Your task to perform on an android device: turn off smart reply in the gmail app Image 0: 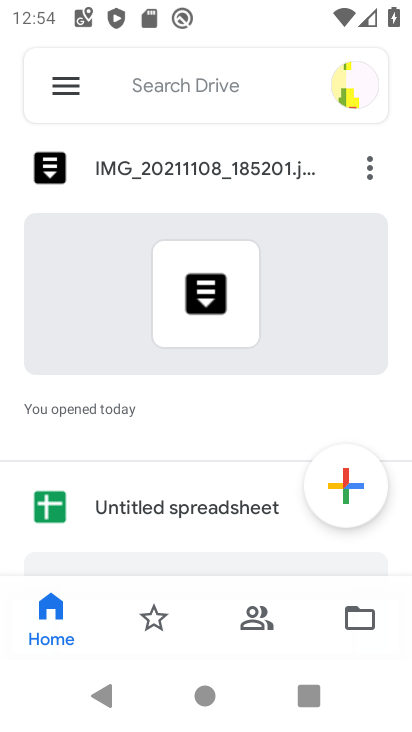
Step 0: press home button
Your task to perform on an android device: turn off smart reply in the gmail app Image 1: 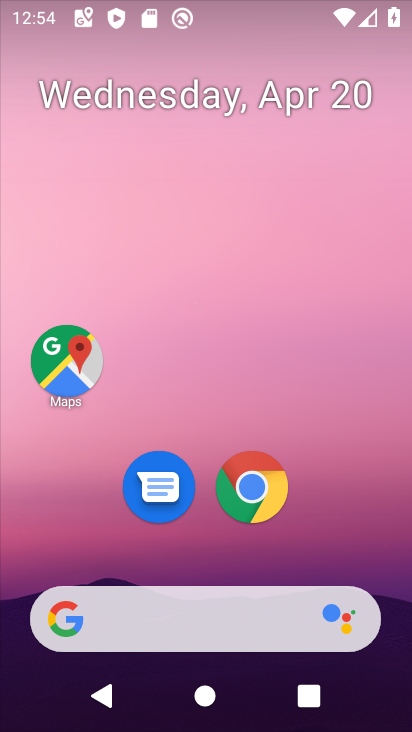
Step 1: drag from (352, 534) to (211, 22)
Your task to perform on an android device: turn off smart reply in the gmail app Image 2: 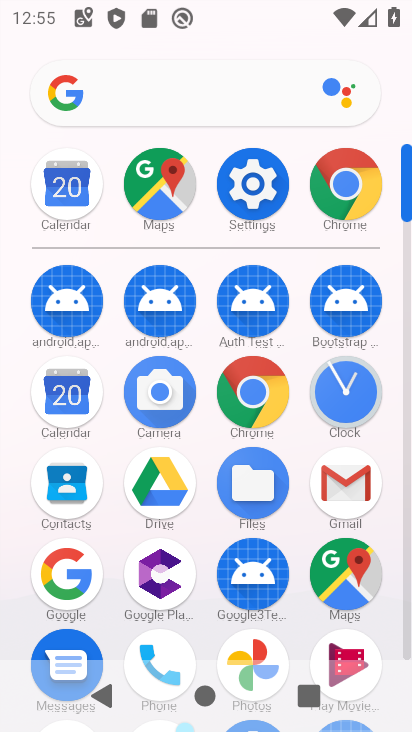
Step 2: click (344, 489)
Your task to perform on an android device: turn off smart reply in the gmail app Image 3: 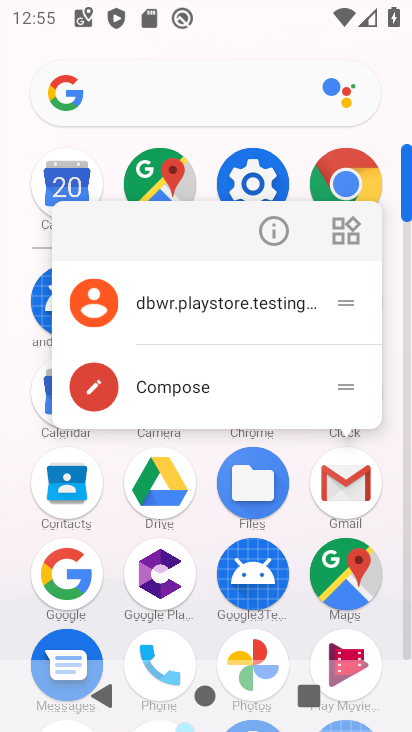
Step 3: click (333, 483)
Your task to perform on an android device: turn off smart reply in the gmail app Image 4: 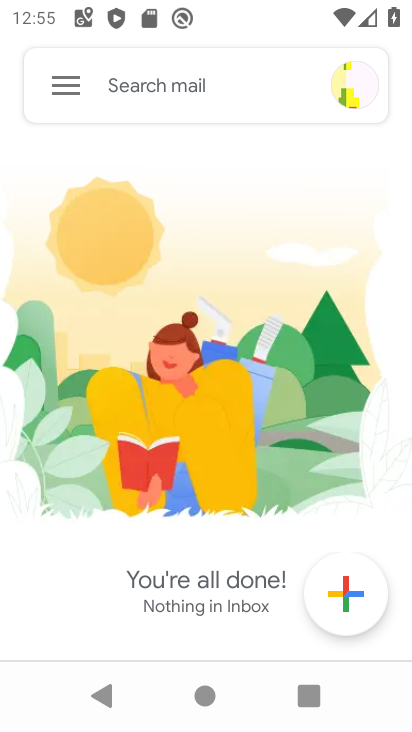
Step 4: click (62, 85)
Your task to perform on an android device: turn off smart reply in the gmail app Image 5: 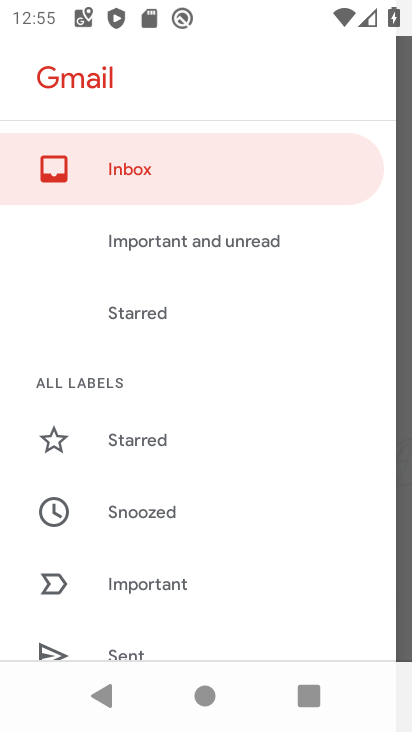
Step 5: drag from (179, 597) to (206, 131)
Your task to perform on an android device: turn off smart reply in the gmail app Image 6: 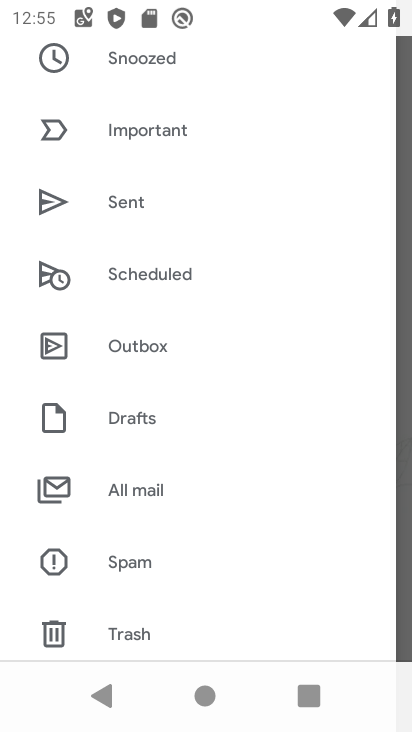
Step 6: drag from (159, 603) to (208, 171)
Your task to perform on an android device: turn off smart reply in the gmail app Image 7: 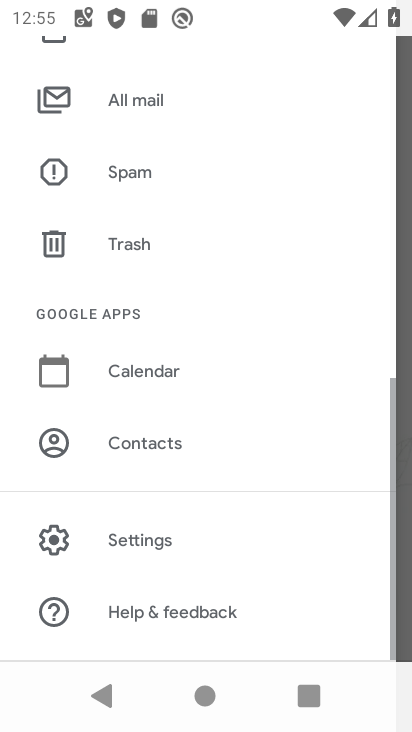
Step 7: drag from (147, 603) to (211, 191)
Your task to perform on an android device: turn off smart reply in the gmail app Image 8: 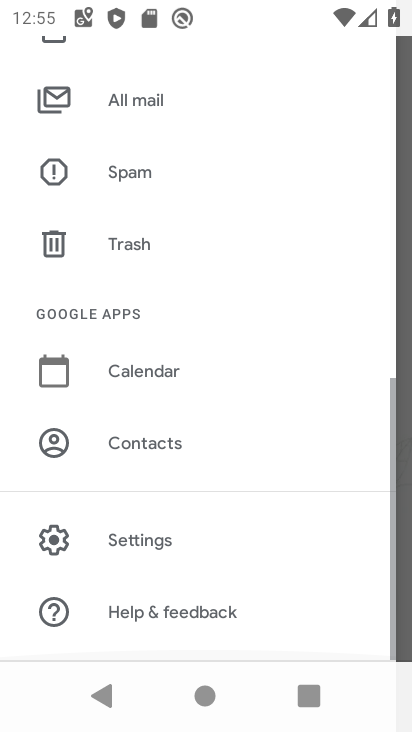
Step 8: click (186, 550)
Your task to perform on an android device: turn off smart reply in the gmail app Image 9: 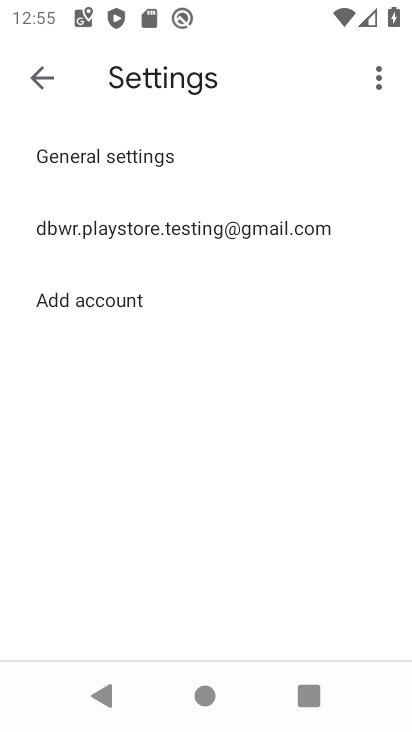
Step 9: click (160, 241)
Your task to perform on an android device: turn off smart reply in the gmail app Image 10: 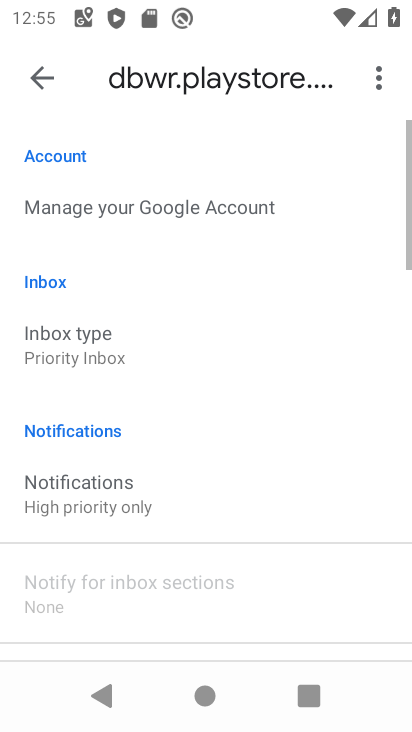
Step 10: drag from (203, 605) to (226, 111)
Your task to perform on an android device: turn off smart reply in the gmail app Image 11: 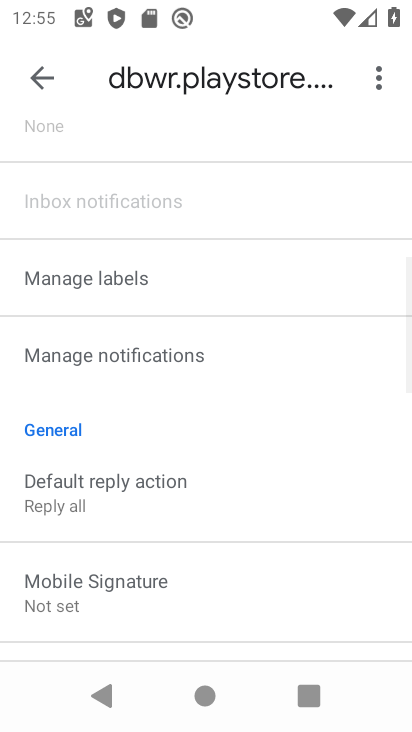
Step 11: drag from (212, 609) to (243, 190)
Your task to perform on an android device: turn off smart reply in the gmail app Image 12: 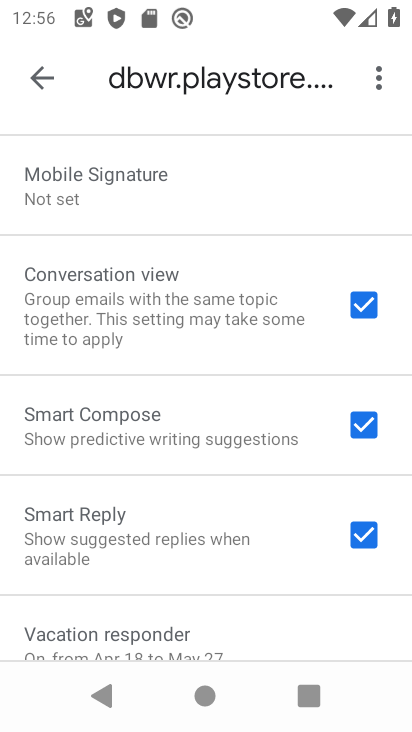
Step 12: click (238, 532)
Your task to perform on an android device: turn off smart reply in the gmail app Image 13: 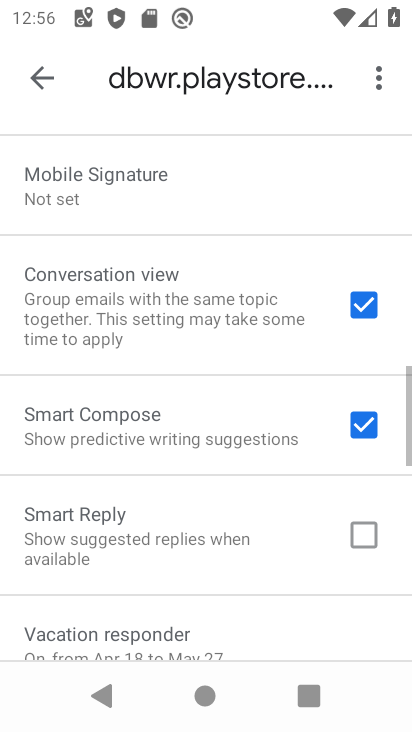
Step 13: task complete